Your task to perform on an android device: When is my next meeting? Image 0: 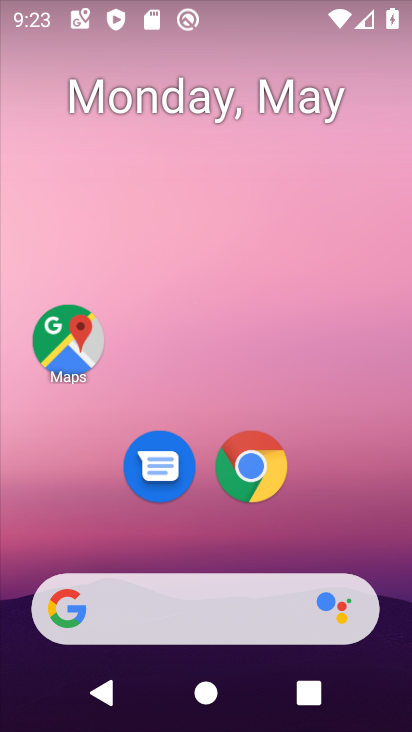
Step 0: drag from (231, 643) to (317, 64)
Your task to perform on an android device: When is my next meeting? Image 1: 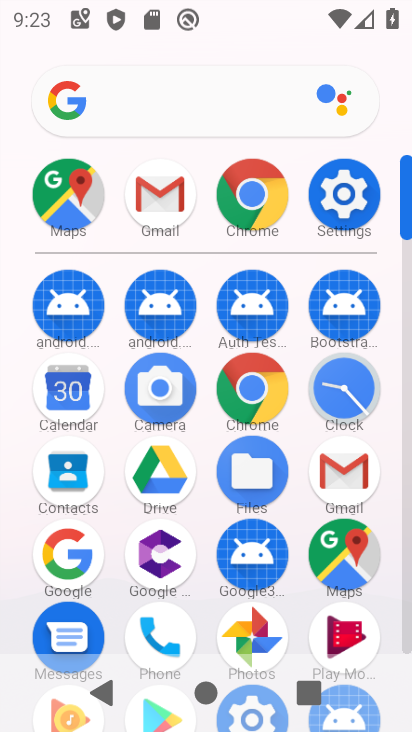
Step 1: click (76, 385)
Your task to perform on an android device: When is my next meeting? Image 2: 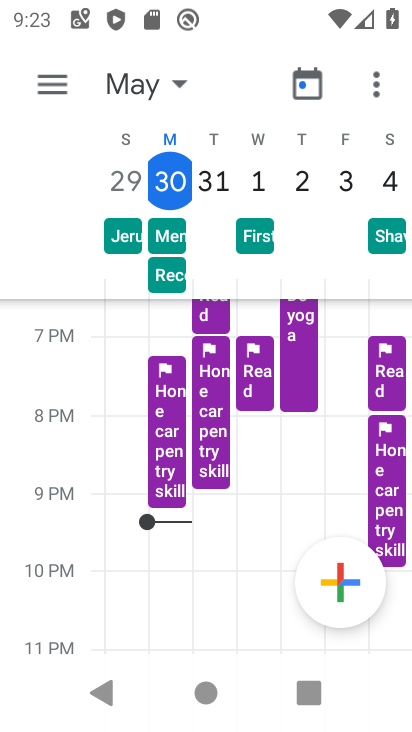
Step 2: click (171, 185)
Your task to perform on an android device: When is my next meeting? Image 3: 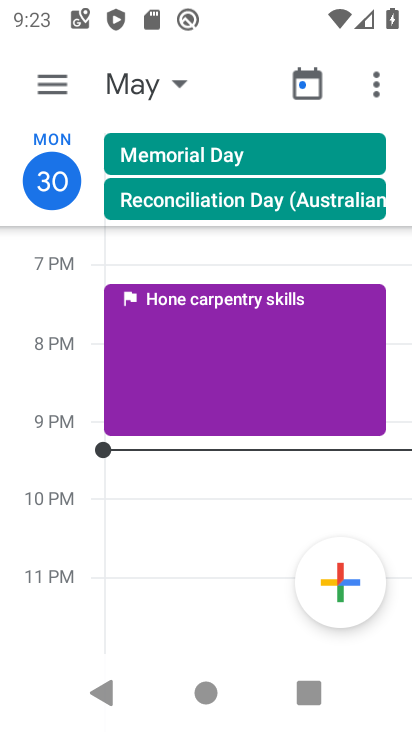
Step 3: click (169, 196)
Your task to perform on an android device: When is my next meeting? Image 4: 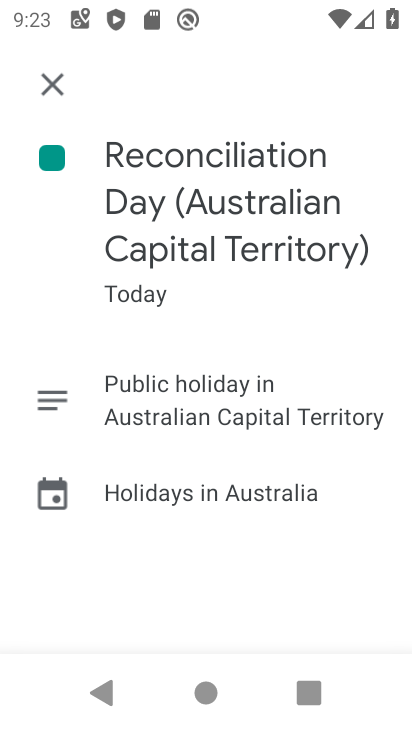
Step 4: task complete